Your task to perform on an android device: open device folders in google photos Image 0: 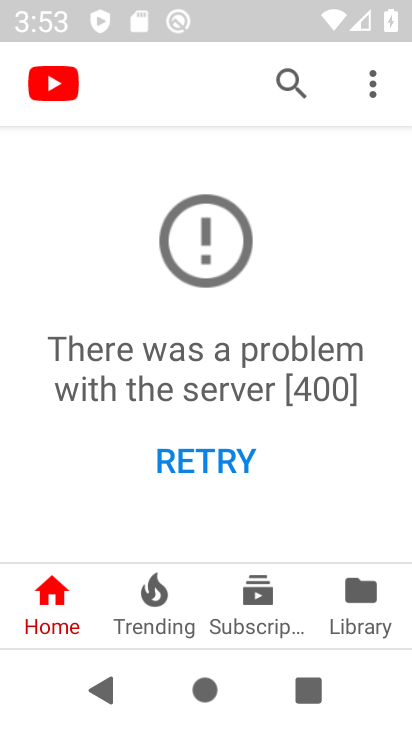
Step 0: press home button
Your task to perform on an android device: open device folders in google photos Image 1: 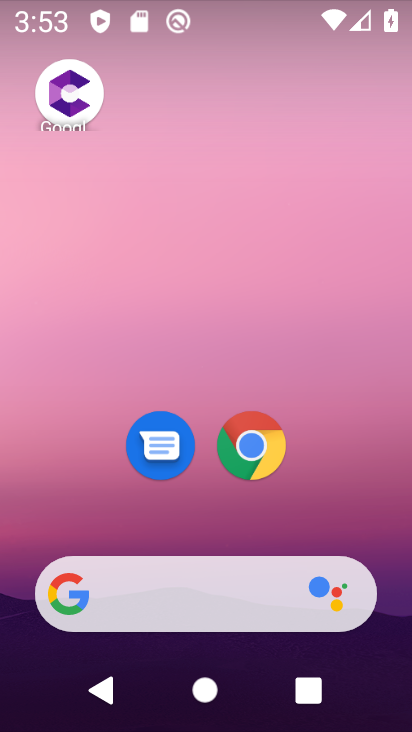
Step 1: drag from (215, 527) to (237, 231)
Your task to perform on an android device: open device folders in google photos Image 2: 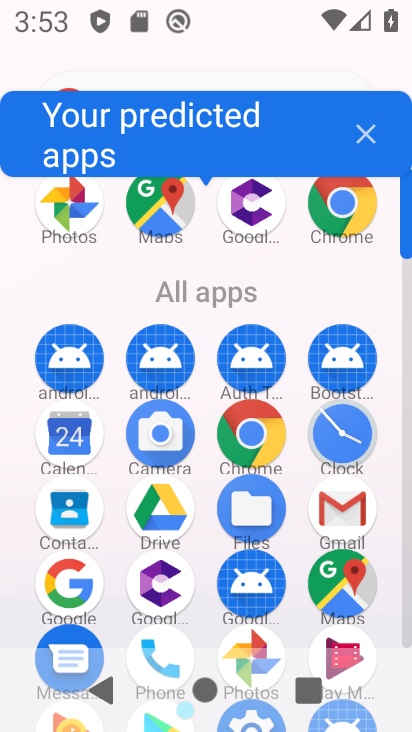
Step 2: drag from (196, 567) to (212, 296)
Your task to perform on an android device: open device folders in google photos Image 3: 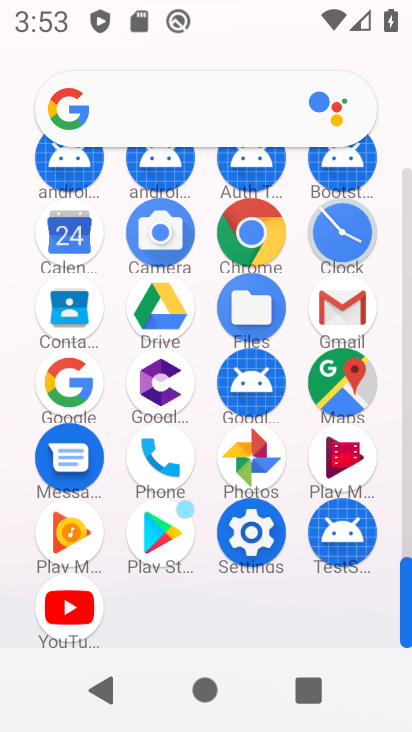
Step 3: click (251, 465)
Your task to perform on an android device: open device folders in google photos Image 4: 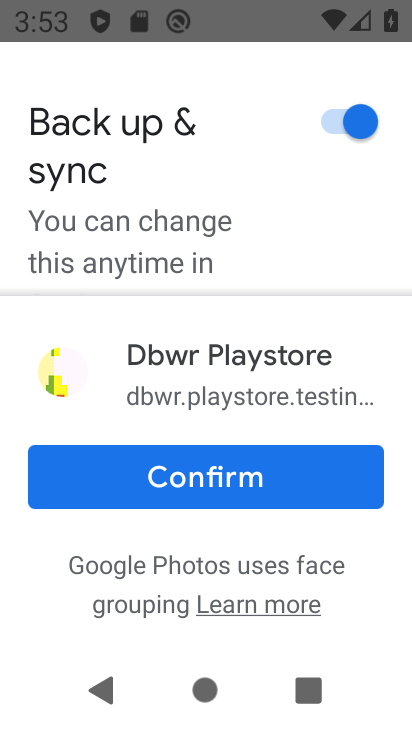
Step 4: click (163, 491)
Your task to perform on an android device: open device folders in google photos Image 5: 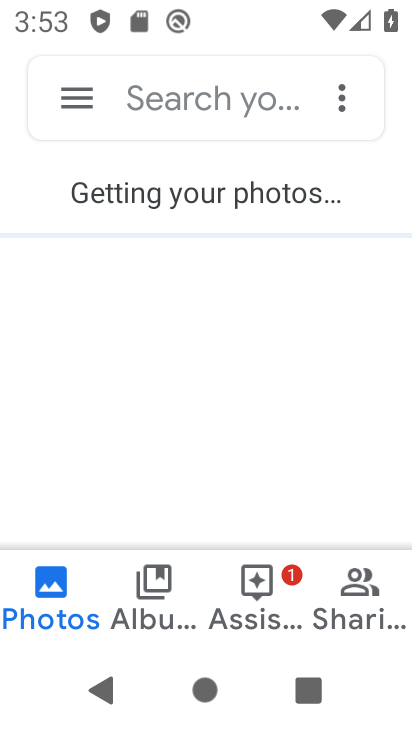
Step 5: click (69, 97)
Your task to perform on an android device: open device folders in google photos Image 6: 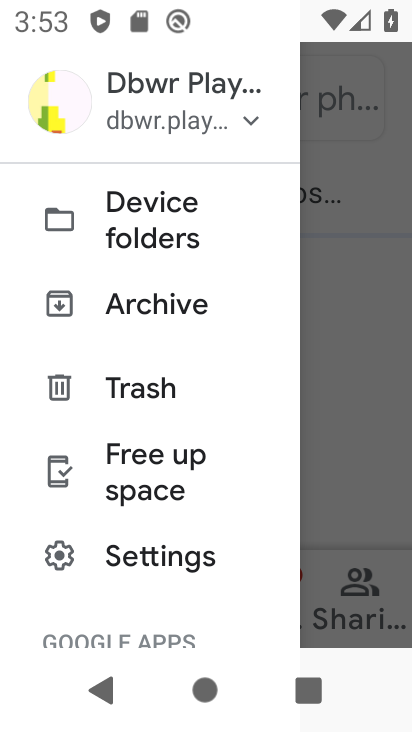
Step 6: click (84, 210)
Your task to perform on an android device: open device folders in google photos Image 7: 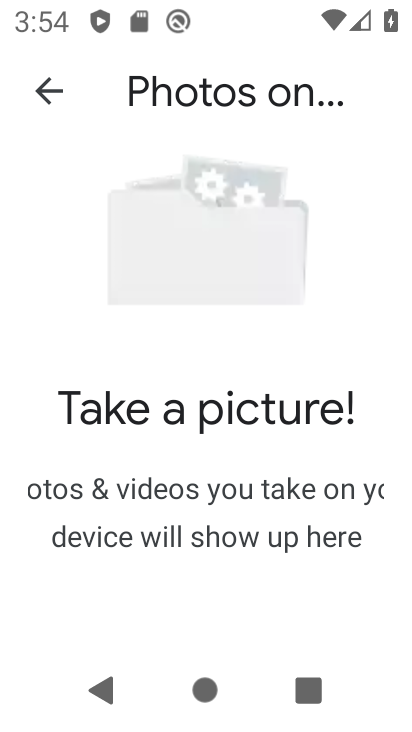
Step 7: task complete